Your task to perform on an android device: Clear all items from cart on newegg. Image 0: 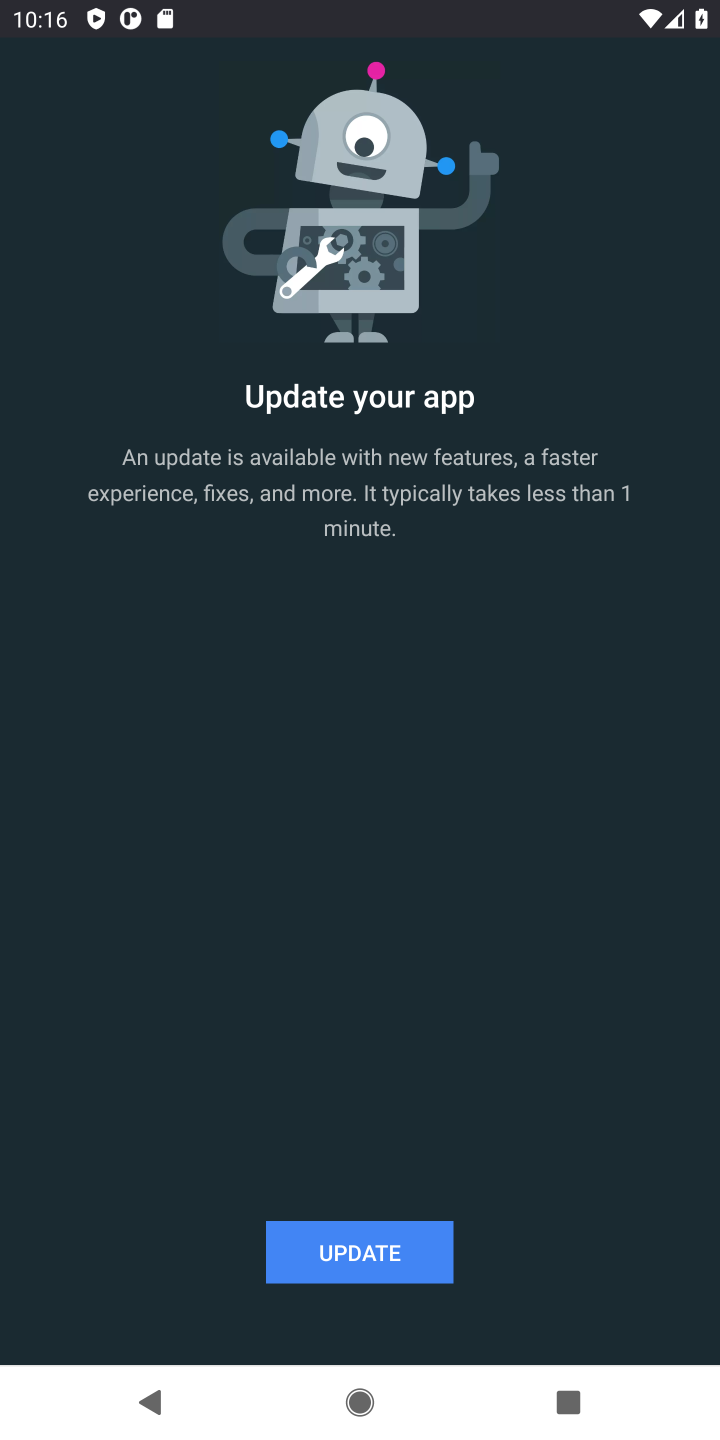
Step 0: press home button
Your task to perform on an android device: Clear all items from cart on newegg. Image 1: 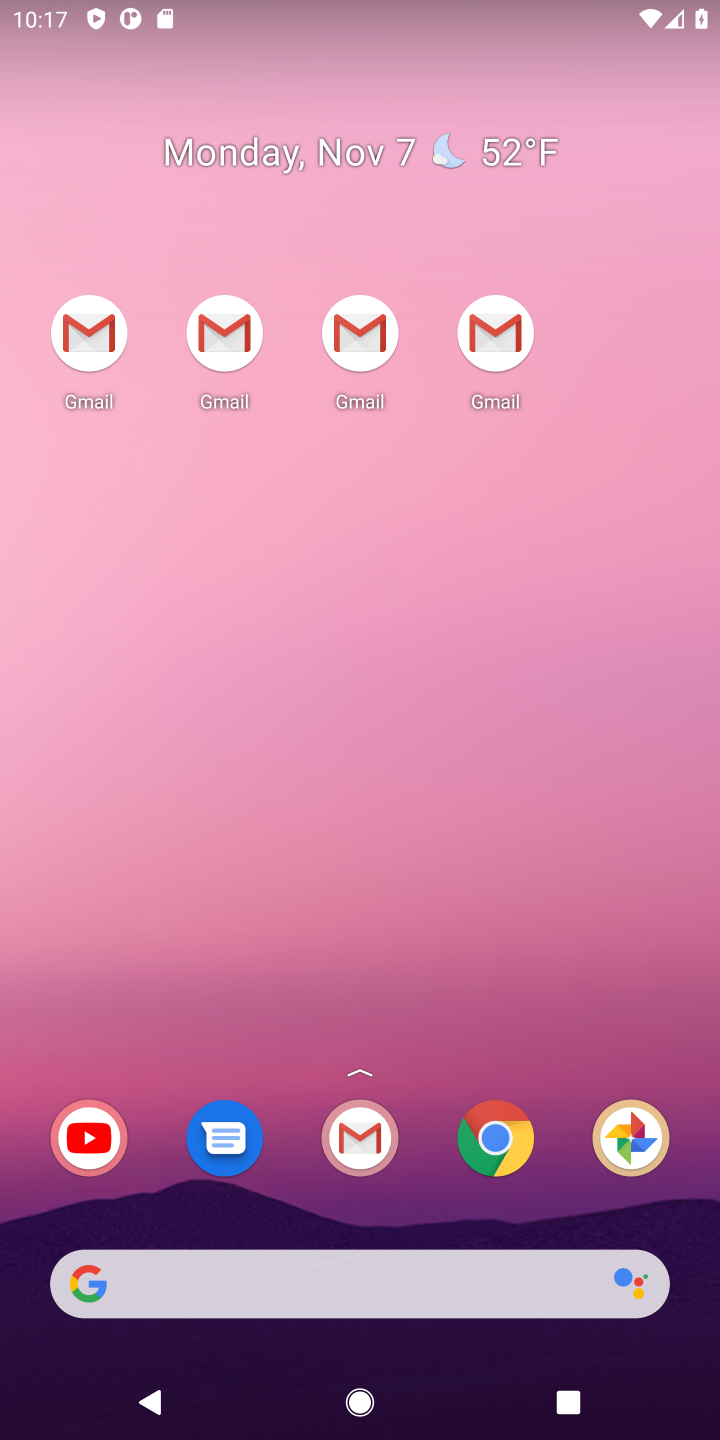
Step 1: drag from (334, 1166) to (372, 658)
Your task to perform on an android device: Clear all items from cart on newegg. Image 2: 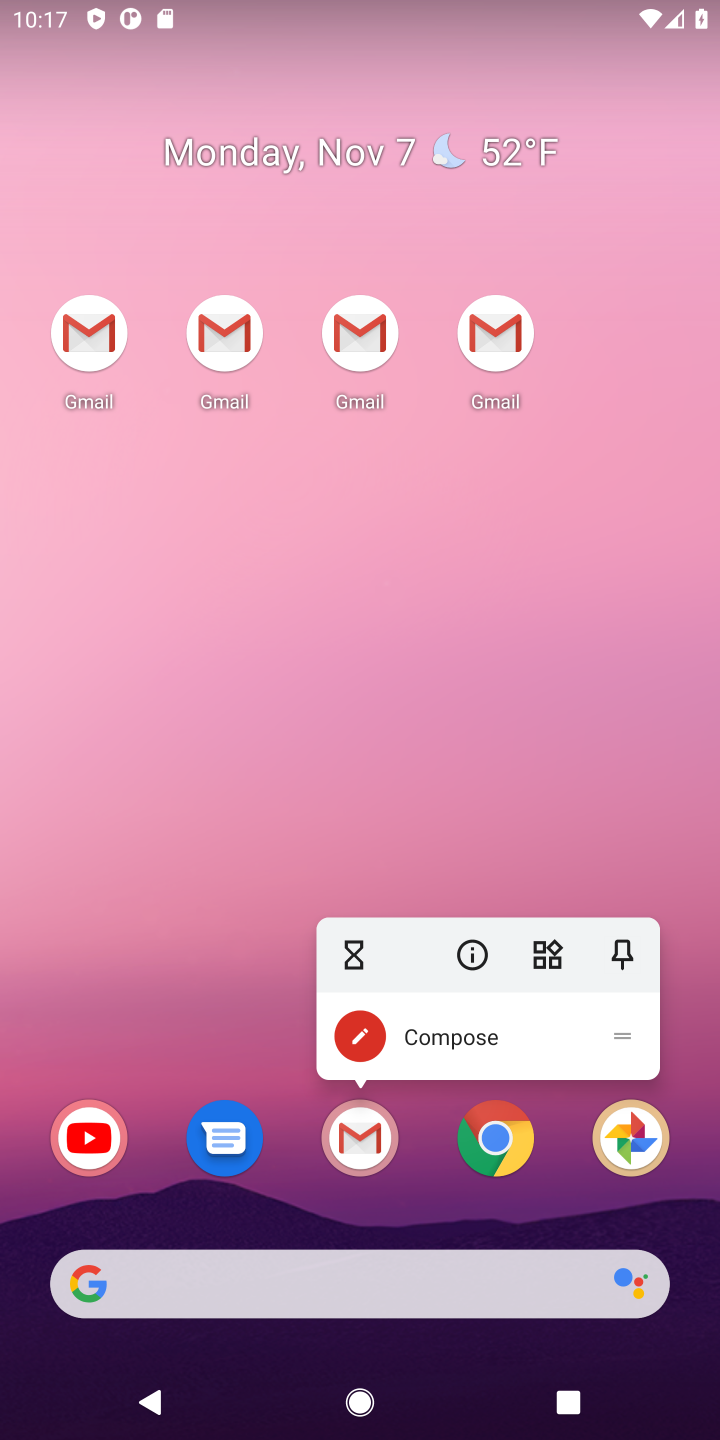
Step 2: drag from (292, 1182) to (332, 342)
Your task to perform on an android device: Clear all items from cart on newegg. Image 3: 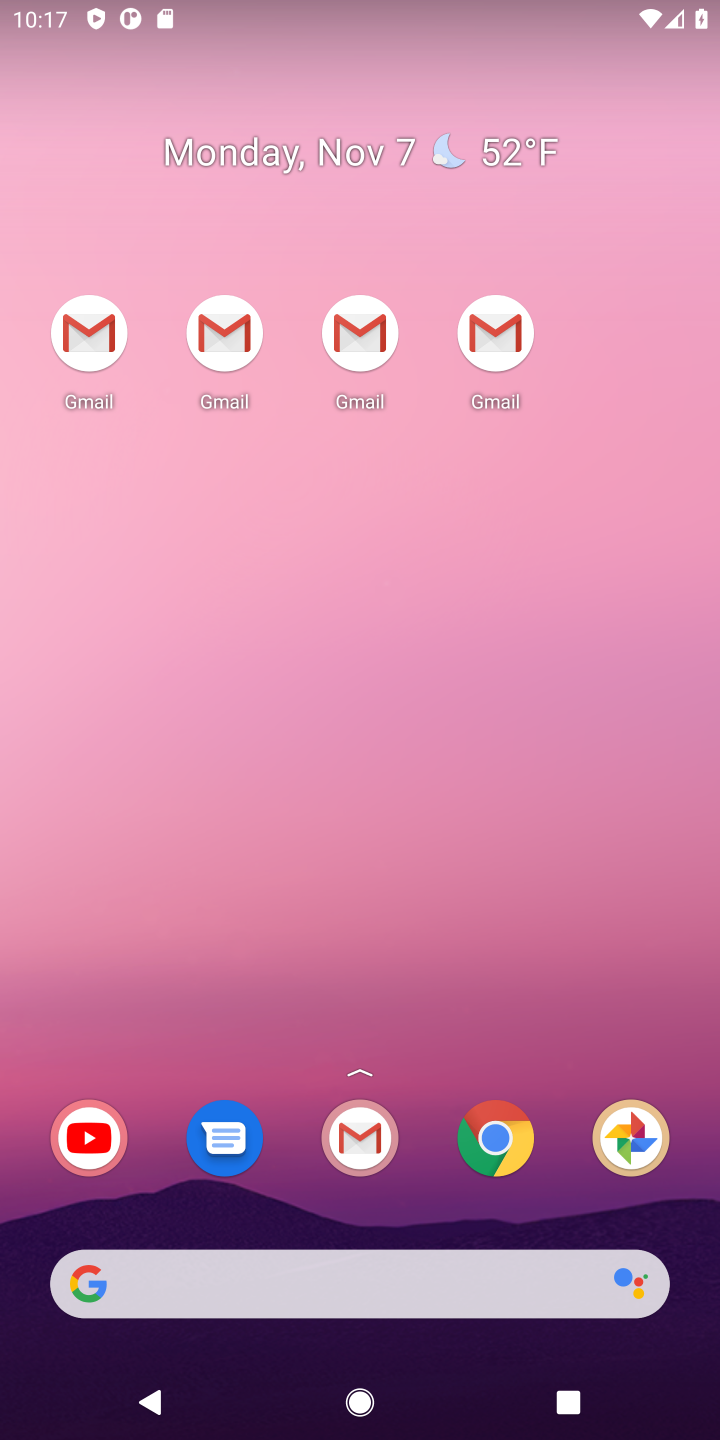
Step 3: drag from (316, 1085) to (505, 232)
Your task to perform on an android device: Clear all items from cart on newegg. Image 4: 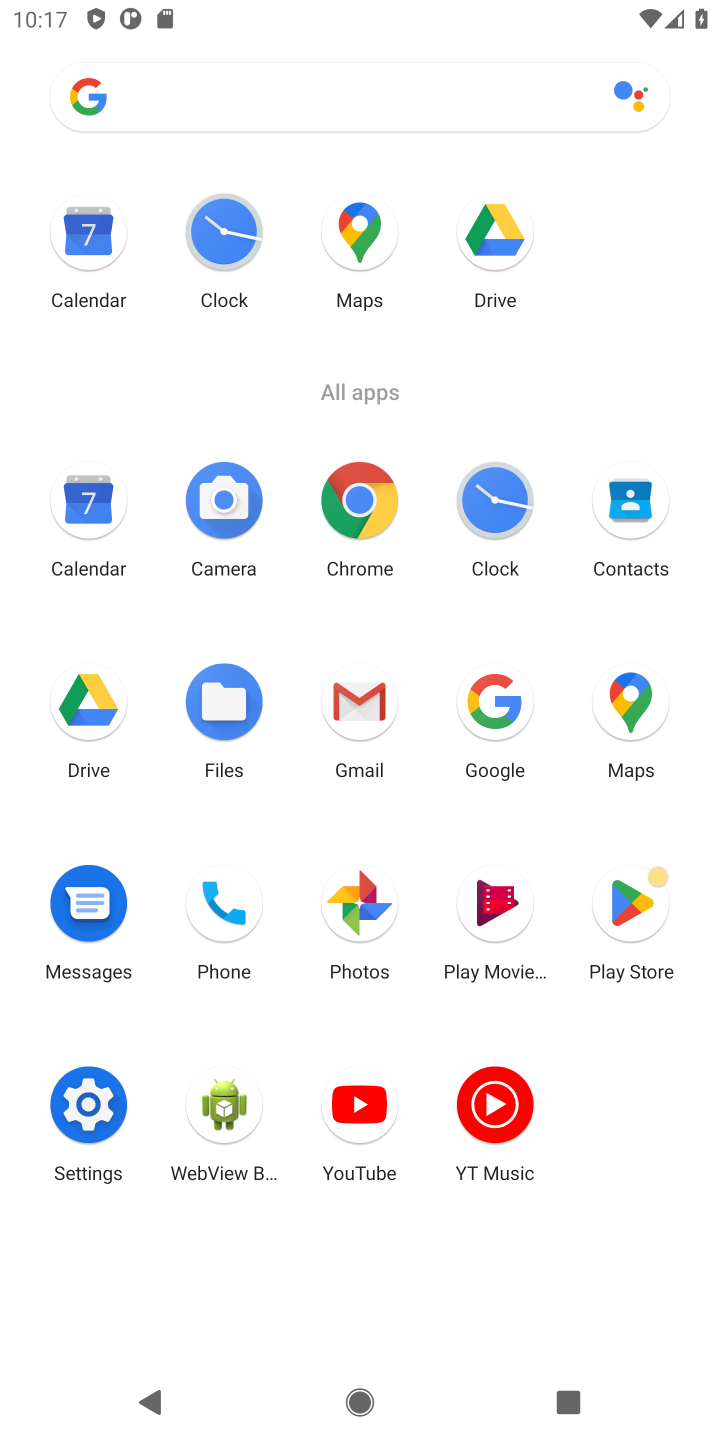
Step 4: click (484, 731)
Your task to perform on an android device: Clear all items from cart on newegg. Image 5: 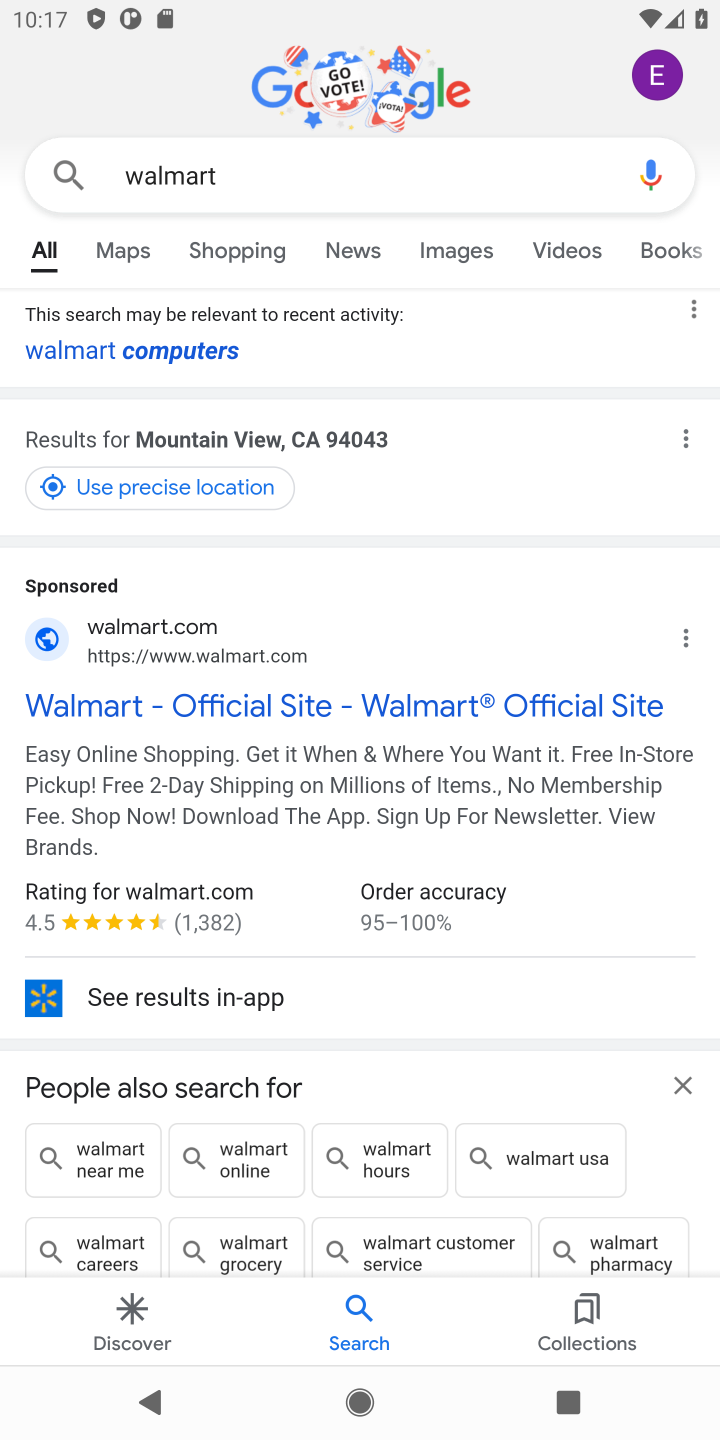
Step 5: click (462, 170)
Your task to perform on an android device: Clear all items from cart on newegg. Image 6: 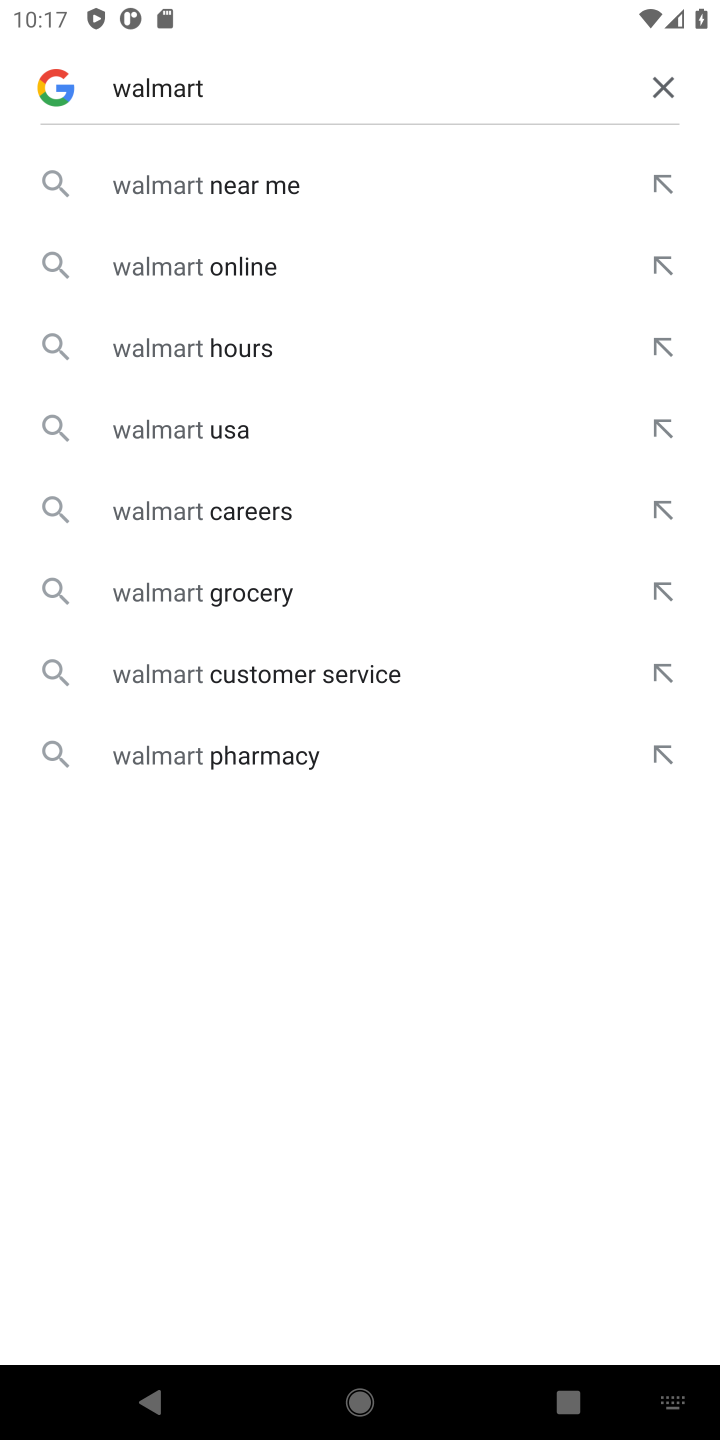
Step 6: click (462, 170)
Your task to perform on an android device: Clear all items from cart on newegg. Image 7: 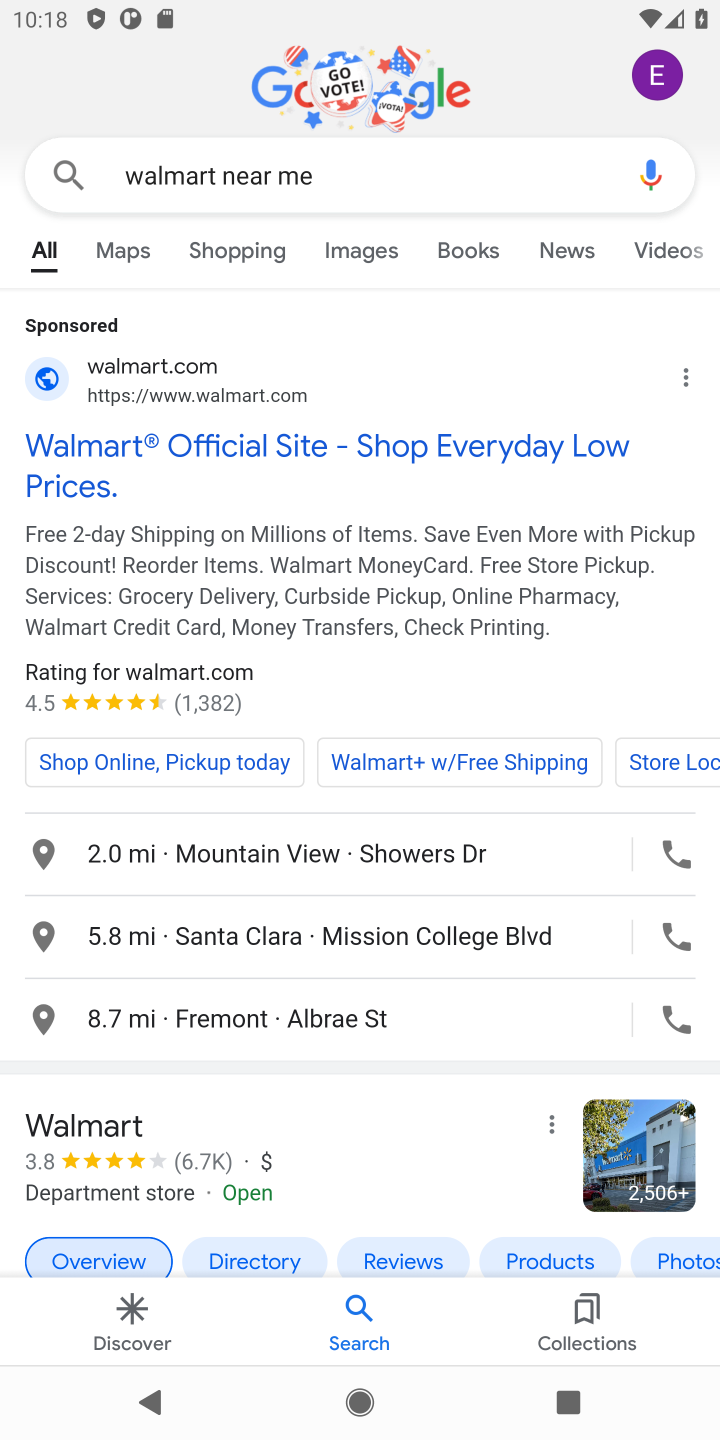
Step 7: click (418, 173)
Your task to perform on an android device: Clear all items from cart on newegg. Image 8: 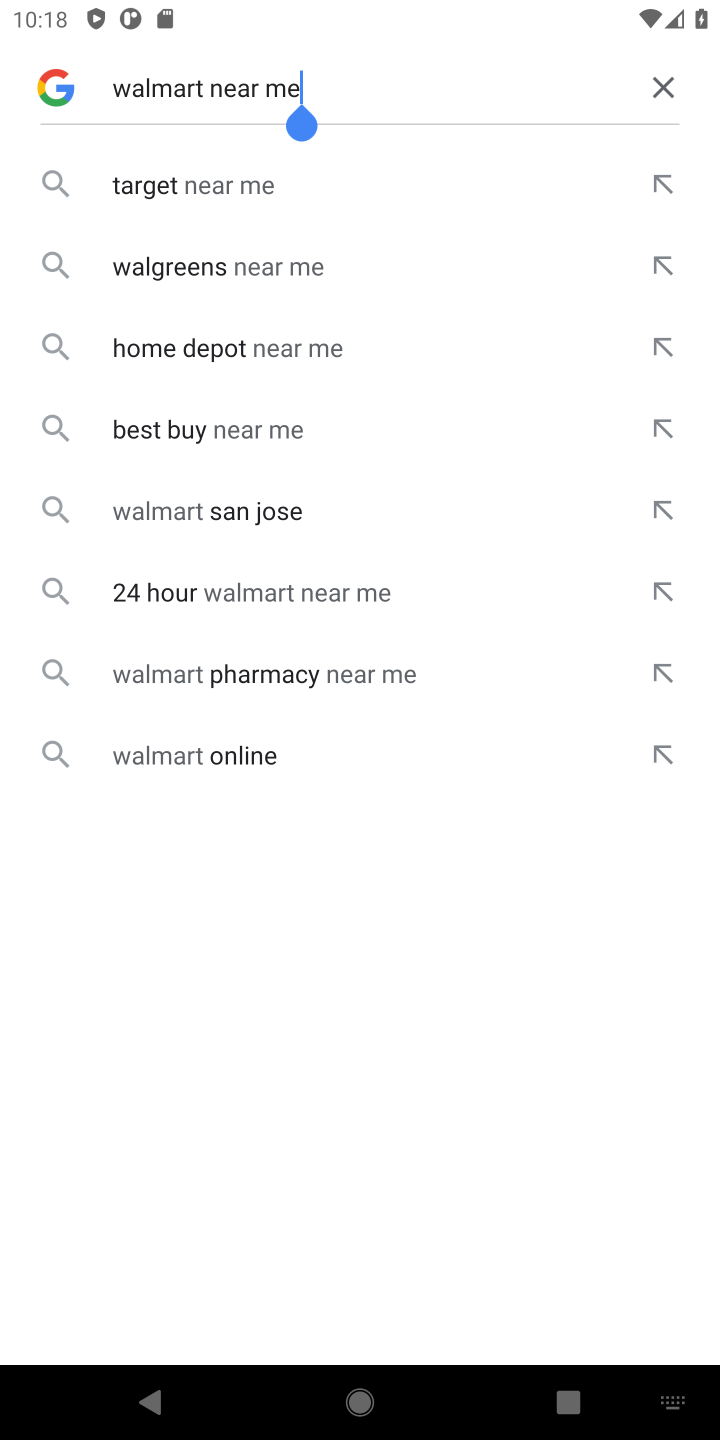
Step 8: click (670, 92)
Your task to perform on an android device: Clear all items from cart on newegg. Image 9: 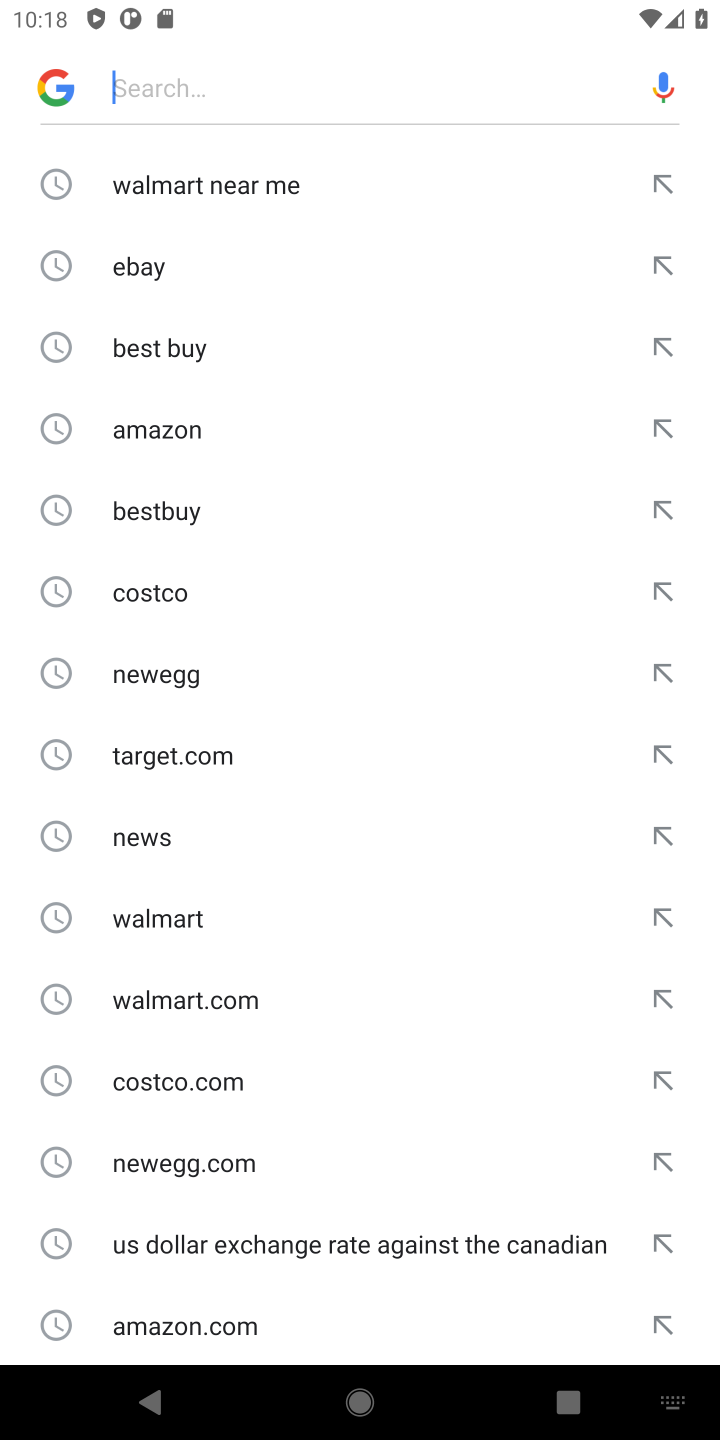
Step 9: type "newegg"
Your task to perform on an android device: Clear all items from cart on newegg. Image 10: 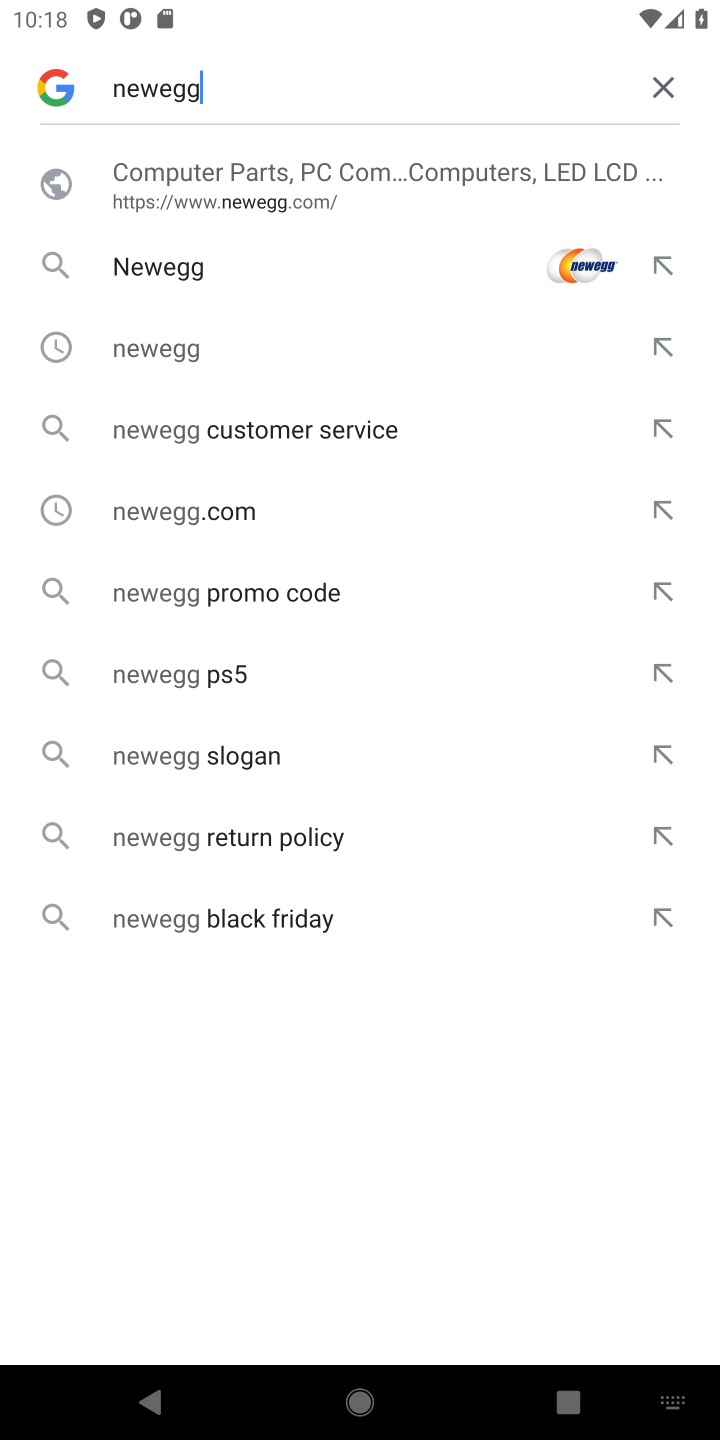
Step 10: click (316, 200)
Your task to perform on an android device: Clear all items from cart on newegg. Image 11: 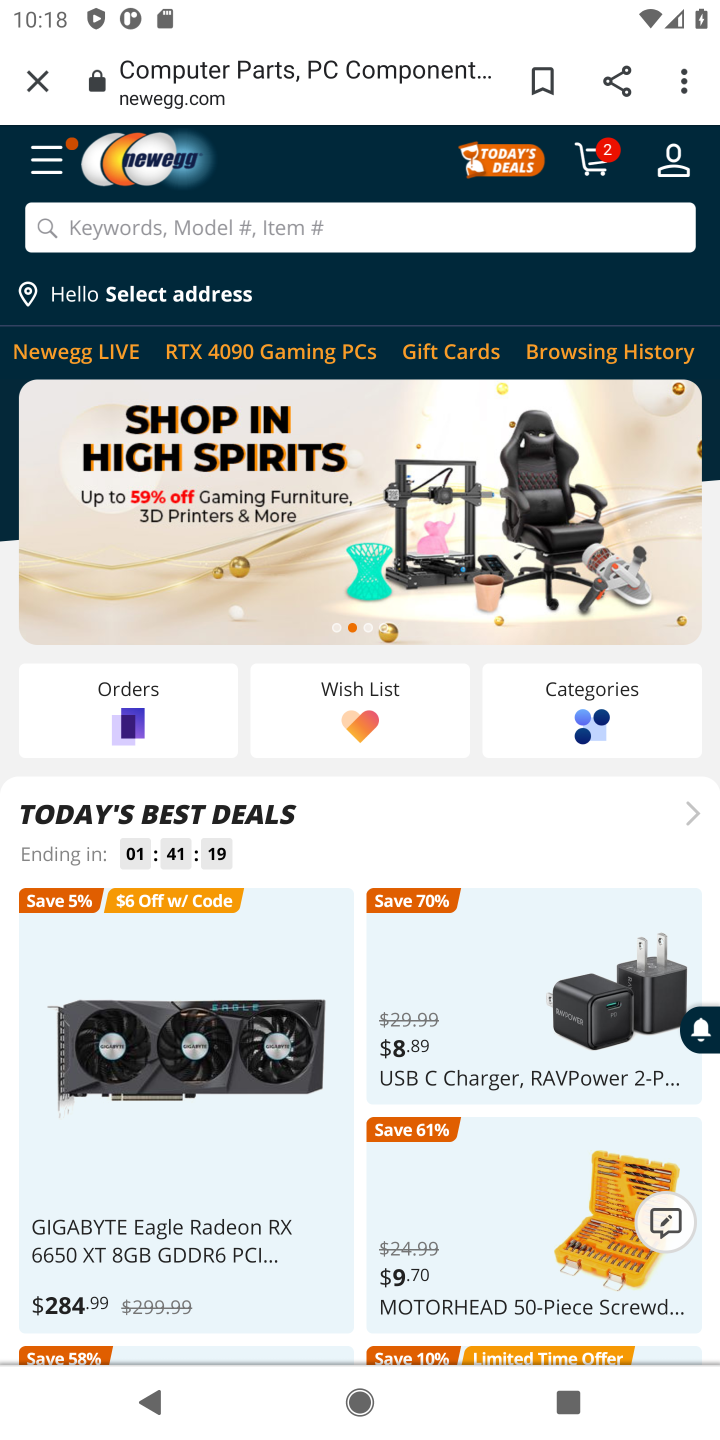
Step 11: click (611, 167)
Your task to perform on an android device: Clear all items from cart on newegg. Image 12: 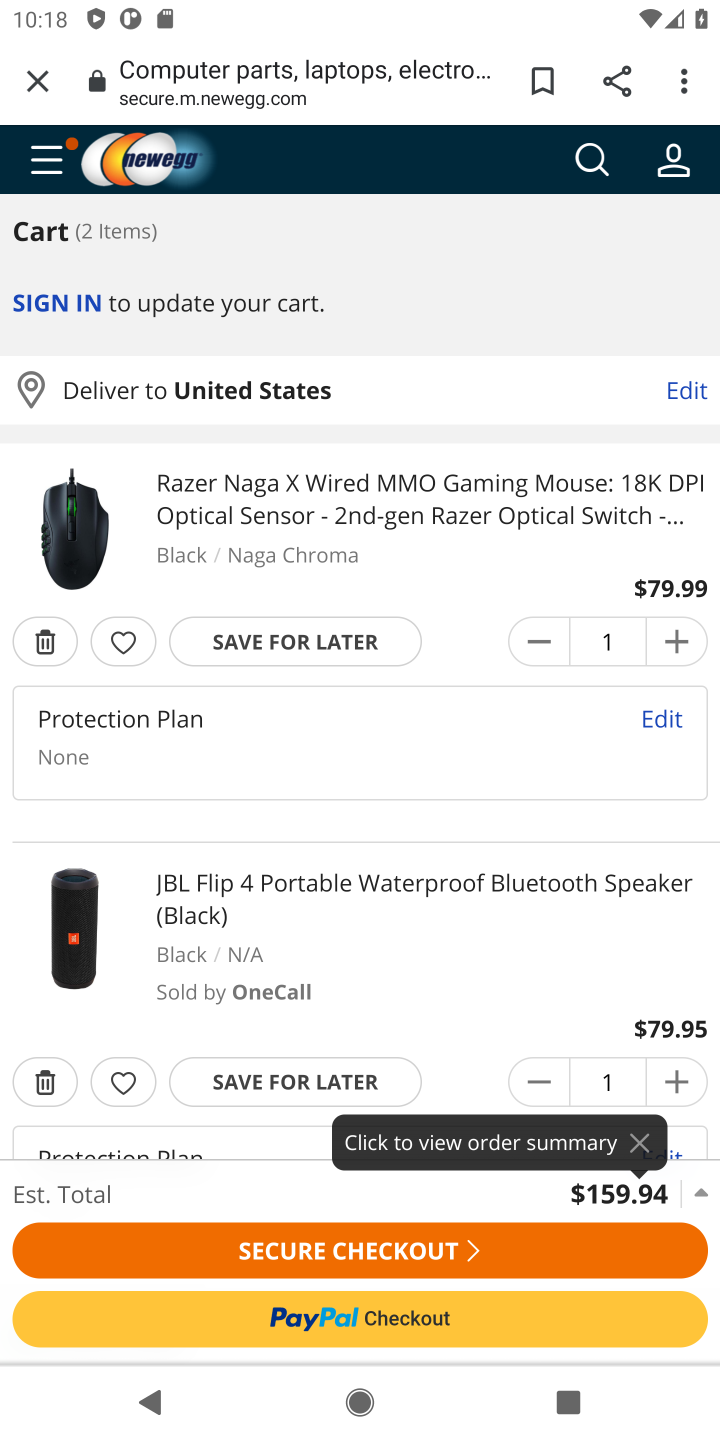
Step 12: click (554, 634)
Your task to perform on an android device: Clear all items from cart on newegg. Image 13: 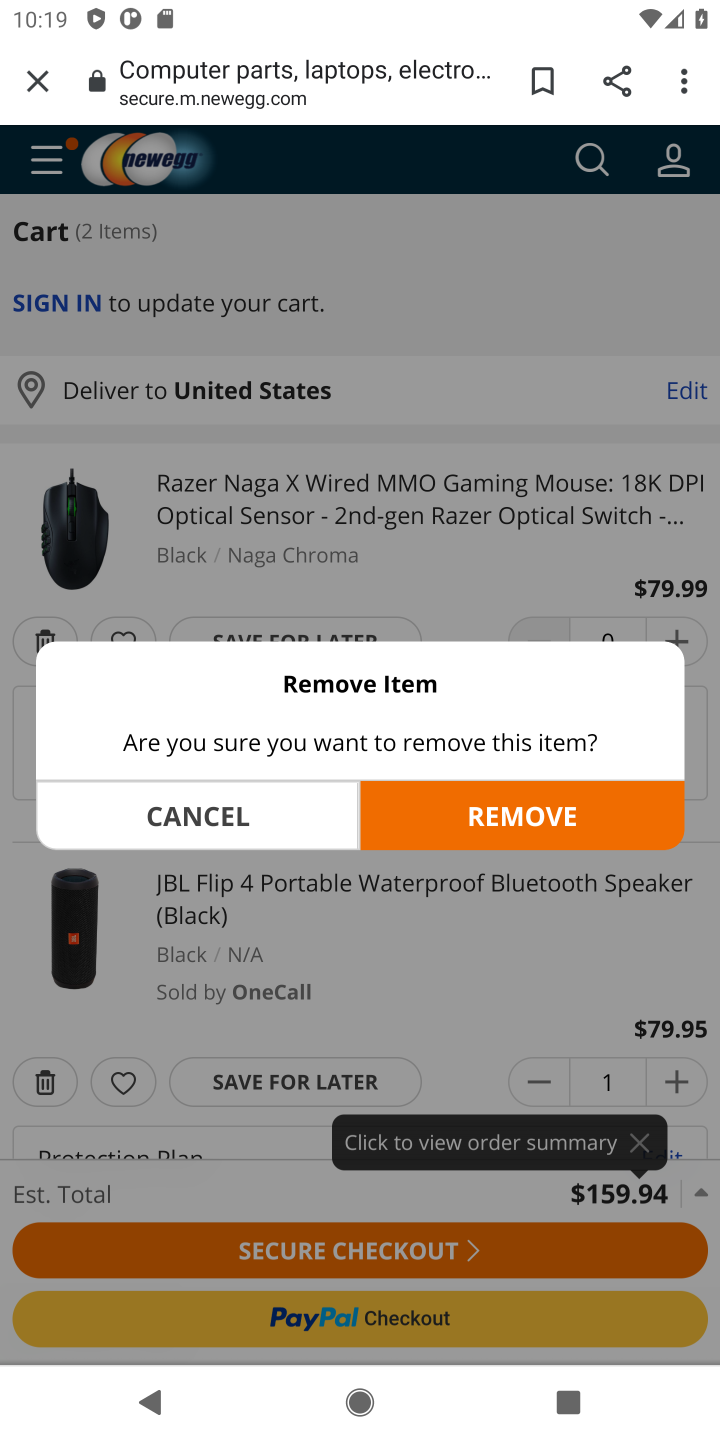
Step 13: click (503, 803)
Your task to perform on an android device: Clear all items from cart on newegg. Image 14: 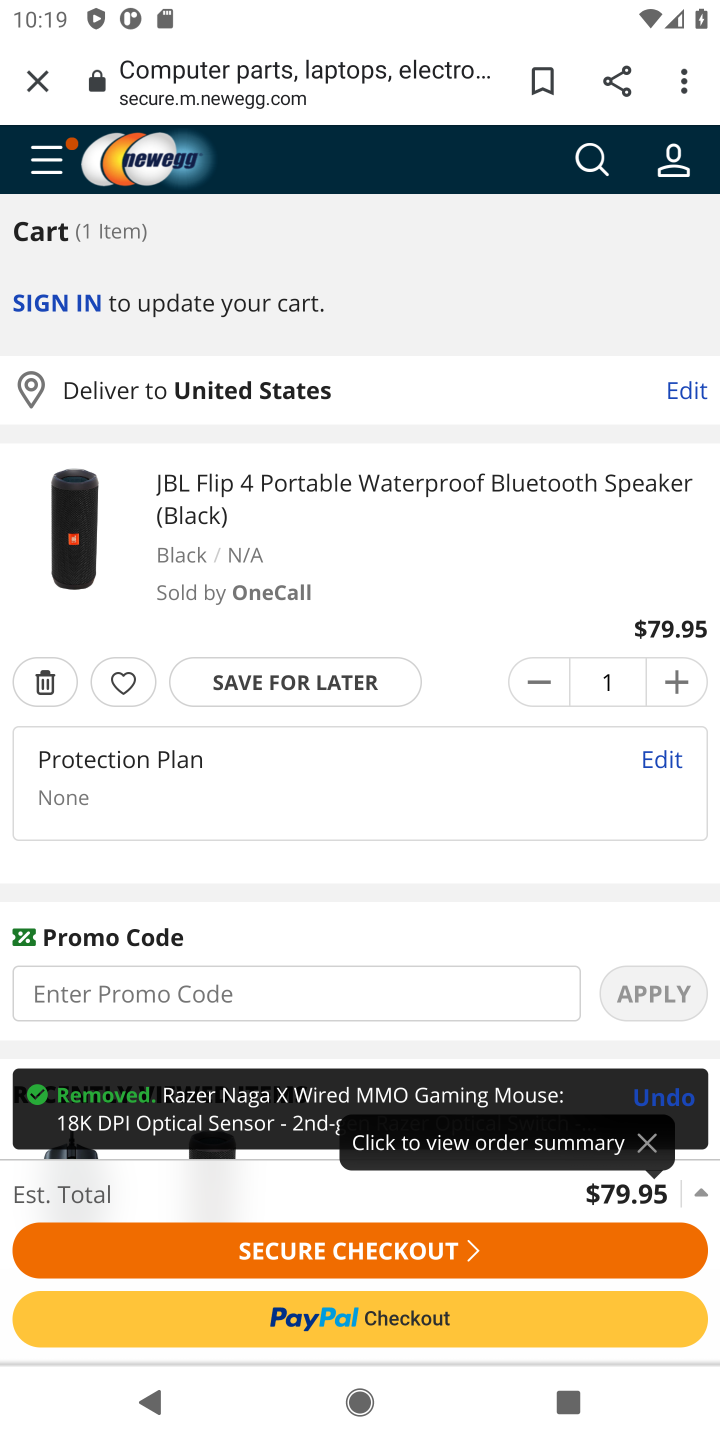
Step 14: click (532, 693)
Your task to perform on an android device: Clear all items from cart on newegg. Image 15: 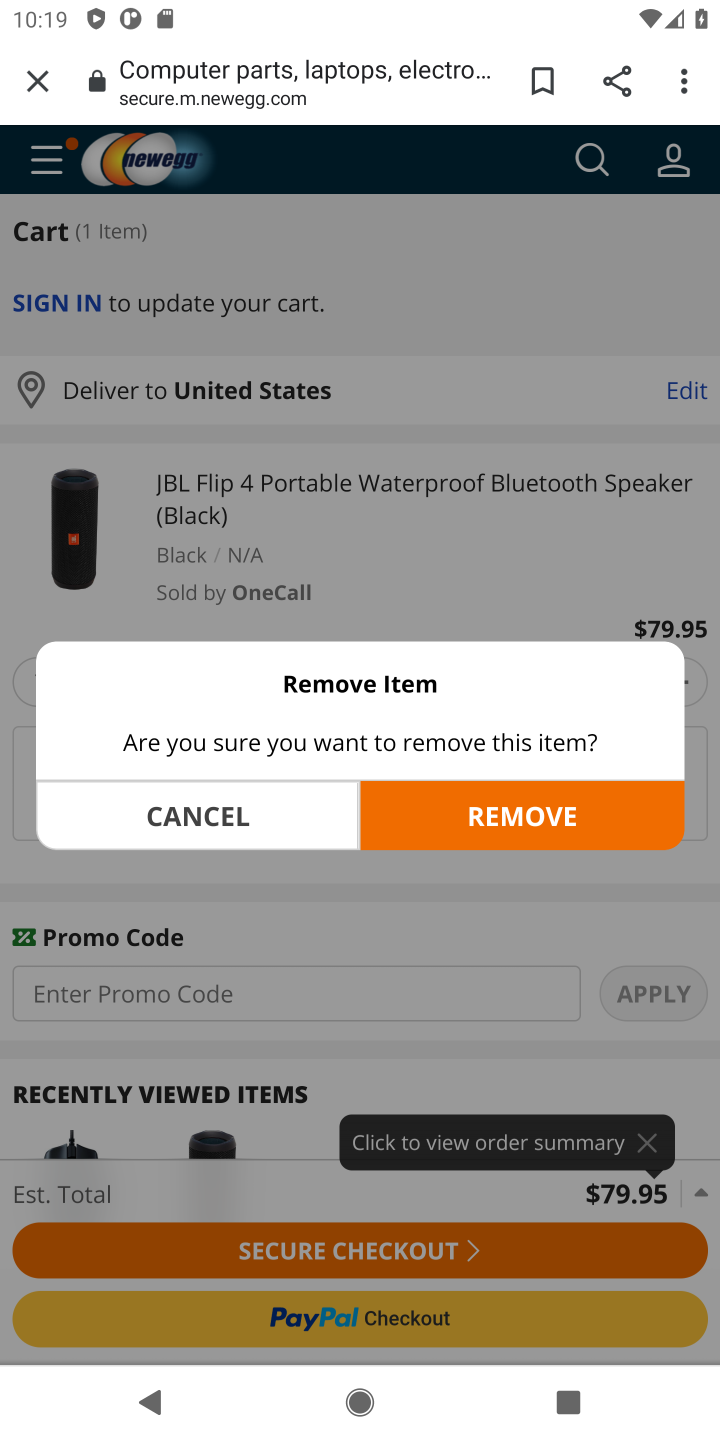
Step 15: click (551, 826)
Your task to perform on an android device: Clear all items from cart on newegg. Image 16: 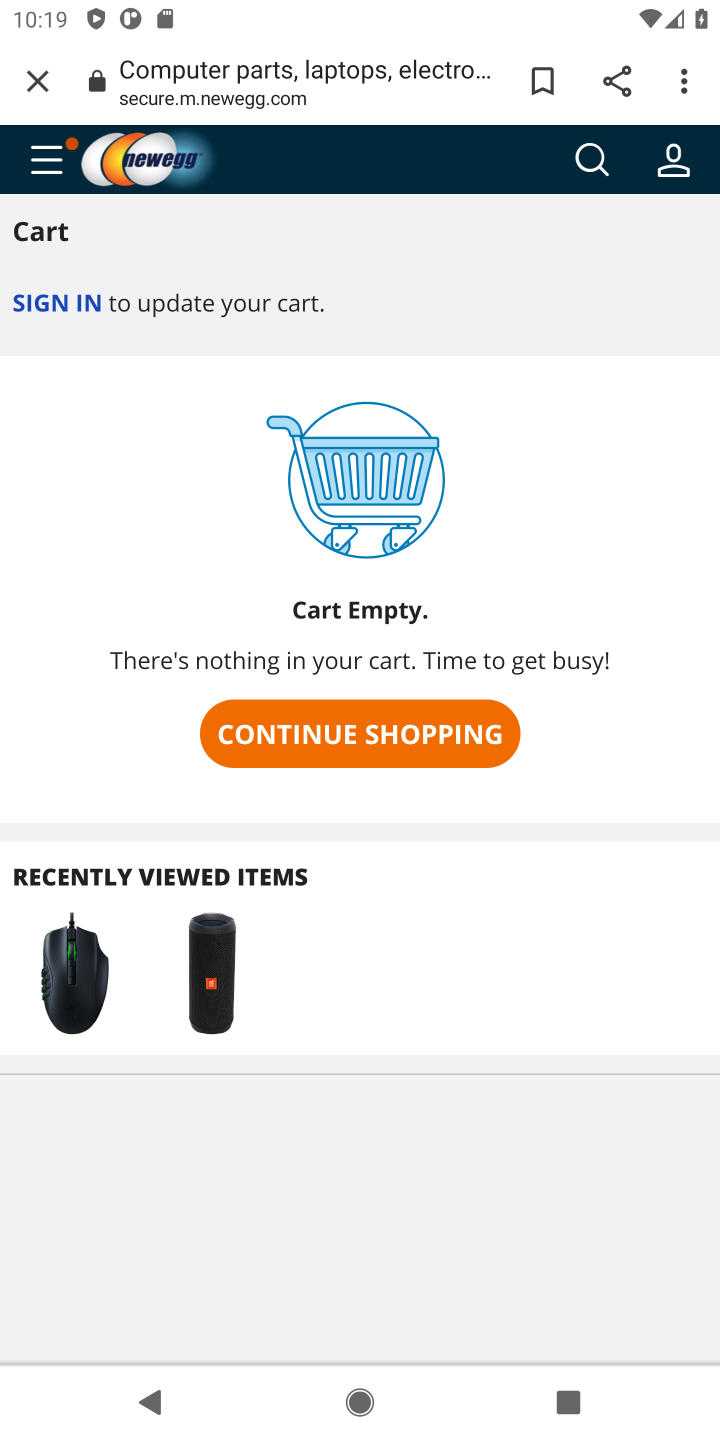
Step 16: task complete